Your task to perform on an android device: What's on my calendar today? Image 0: 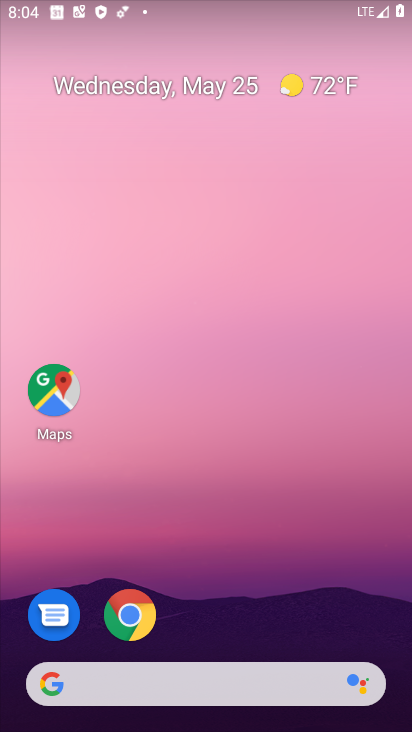
Step 0: drag from (244, 544) to (293, 42)
Your task to perform on an android device: What's on my calendar today? Image 1: 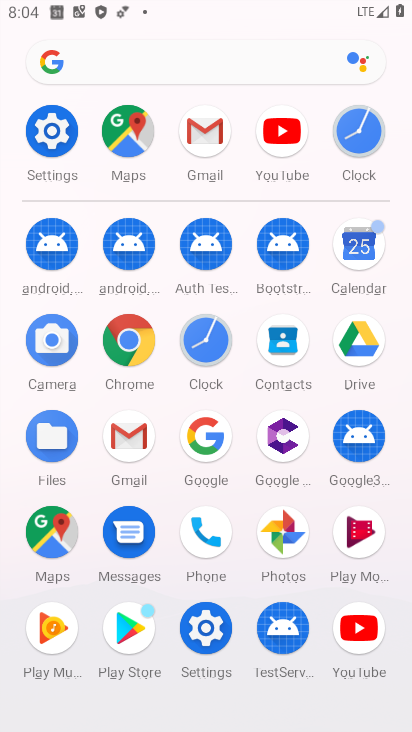
Step 1: click (355, 252)
Your task to perform on an android device: What's on my calendar today? Image 2: 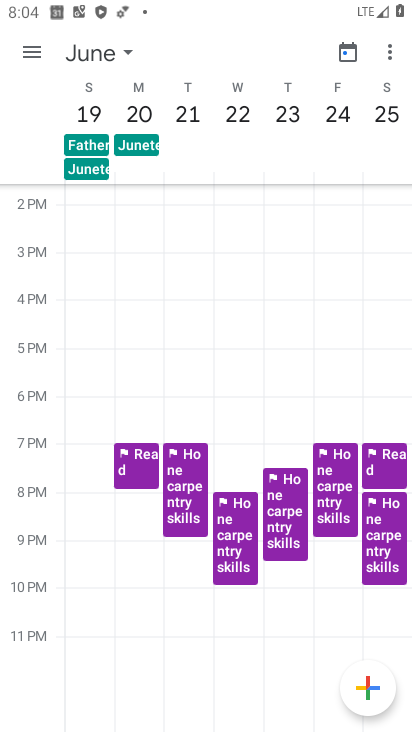
Step 2: drag from (100, 307) to (411, 341)
Your task to perform on an android device: What's on my calendar today? Image 3: 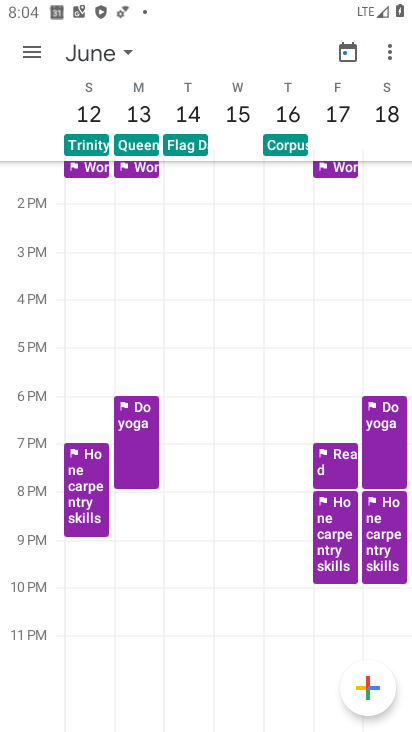
Step 3: drag from (87, 328) to (407, 356)
Your task to perform on an android device: What's on my calendar today? Image 4: 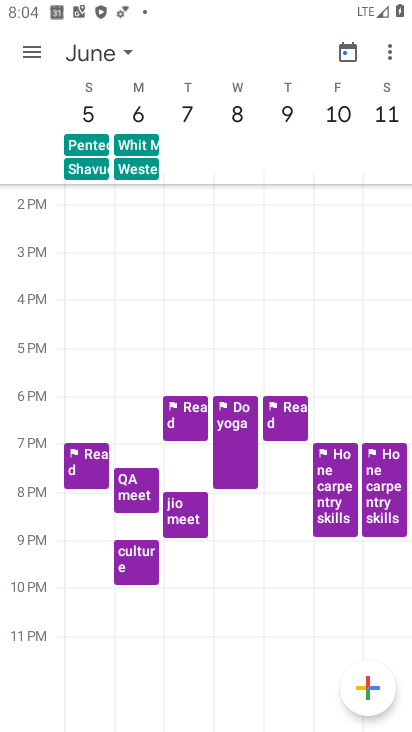
Step 4: drag from (90, 303) to (409, 375)
Your task to perform on an android device: What's on my calendar today? Image 5: 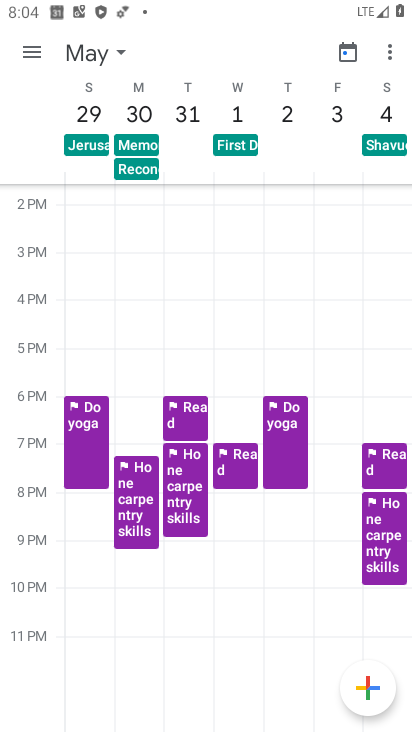
Step 5: drag from (93, 294) to (409, 308)
Your task to perform on an android device: What's on my calendar today? Image 6: 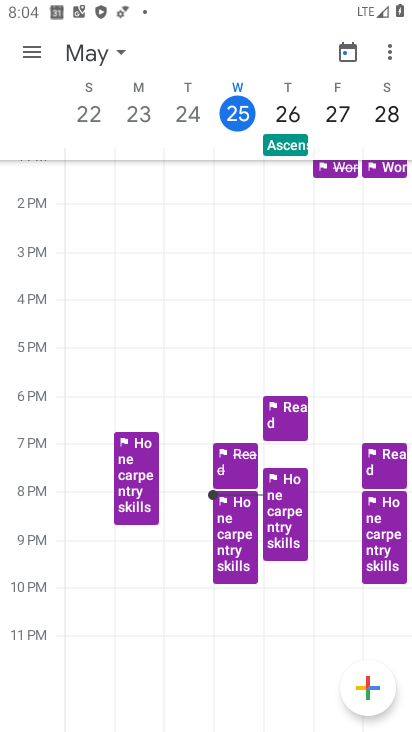
Step 6: click (242, 112)
Your task to perform on an android device: What's on my calendar today? Image 7: 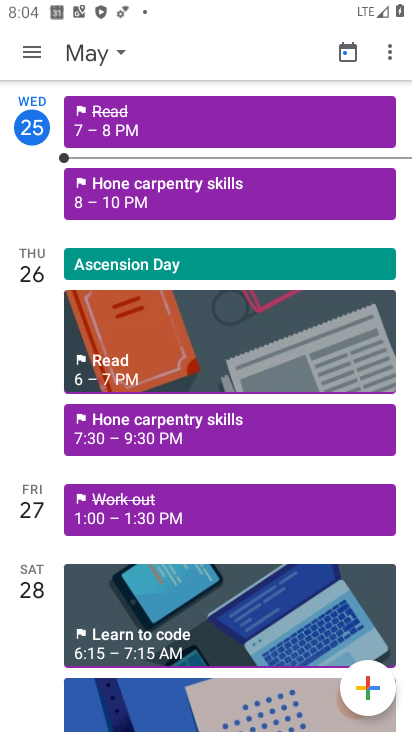
Step 7: task complete